Your task to perform on an android device: Open privacy settings Image 0: 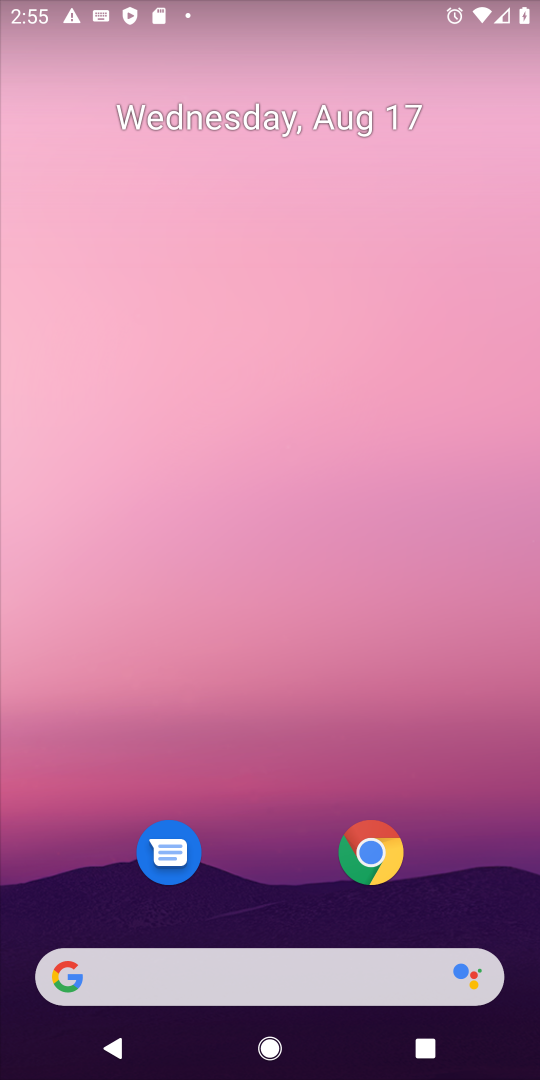
Step 0: drag from (274, 870) to (422, 91)
Your task to perform on an android device: Open privacy settings Image 1: 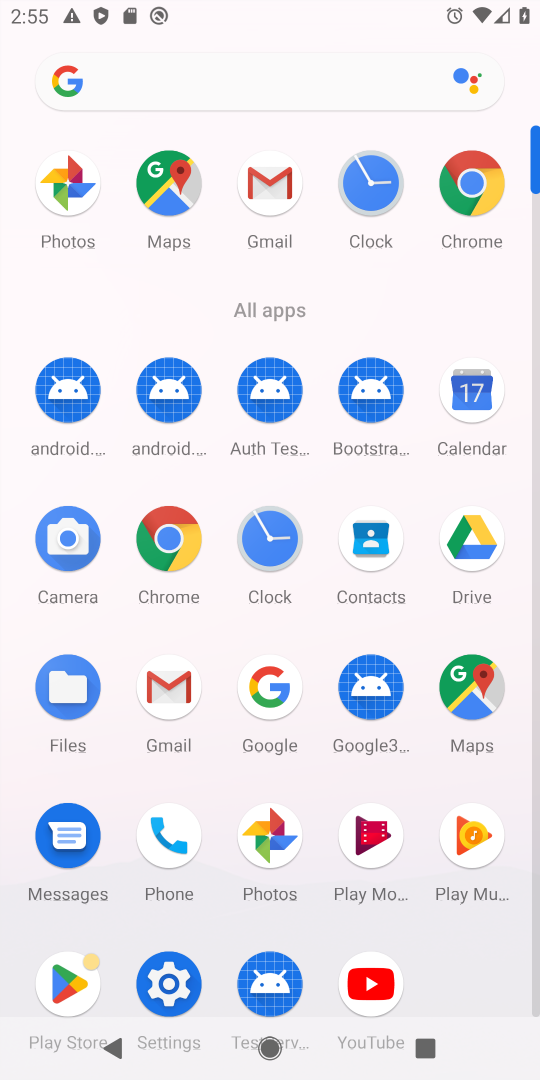
Step 1: click (169, 962)
Your task to perform on an android device: Open privacy settings Image 2: 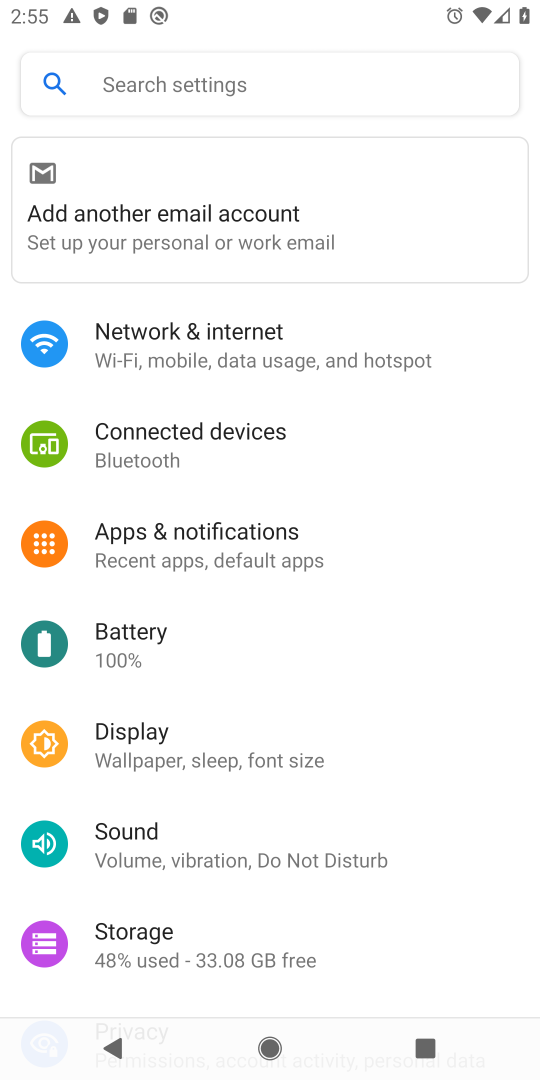
Step 2: drag from (283, 918) to (329, 116)
Your task to perform on an android device: Open privacy settings Image 3: 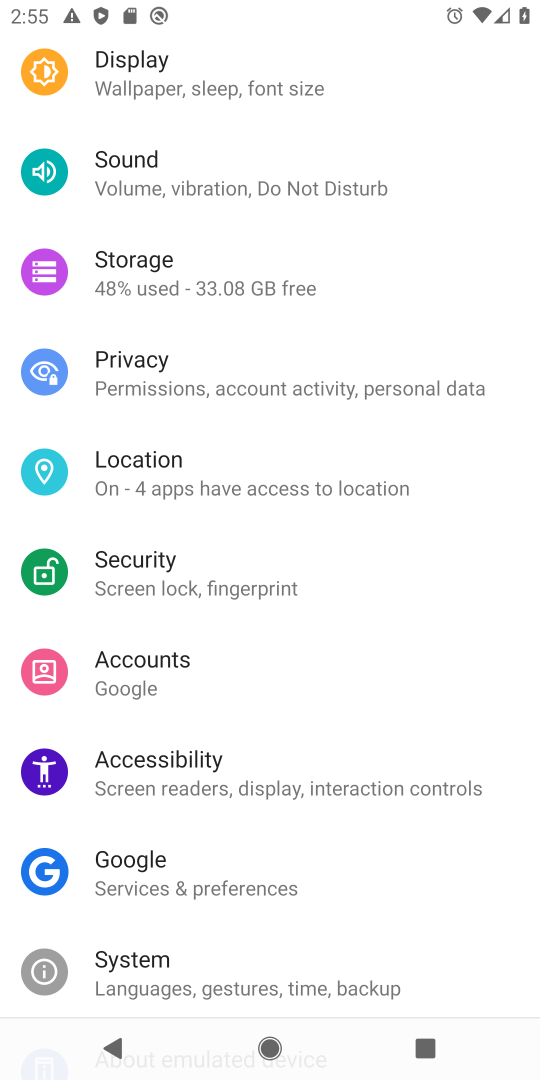
Step 3: click (142, 373)
Your task to perform on an android device: Open privacy settings Image 4: 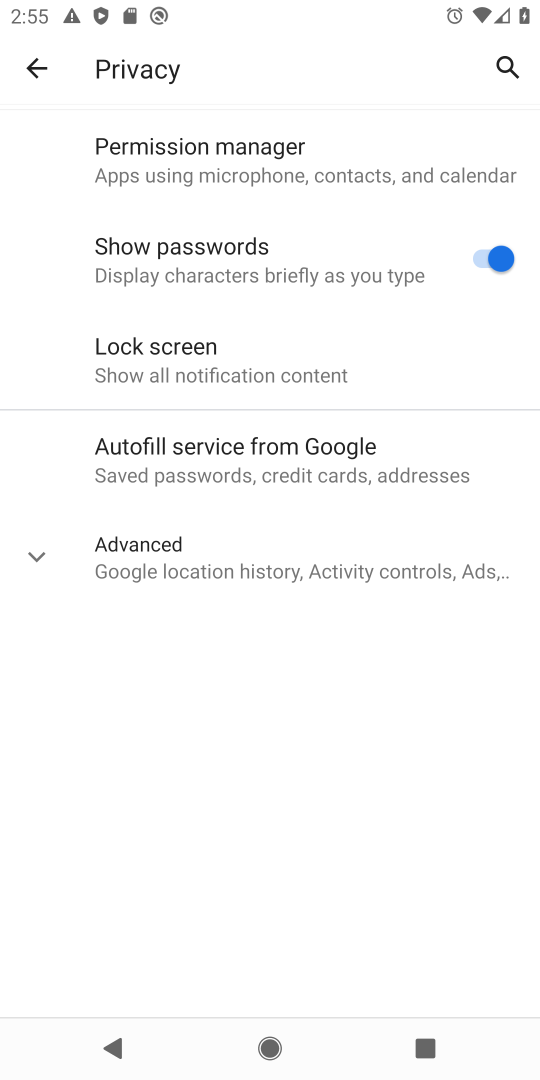
Step 4: task complete